Your task to perform on an android device: Open location settings Image 0: 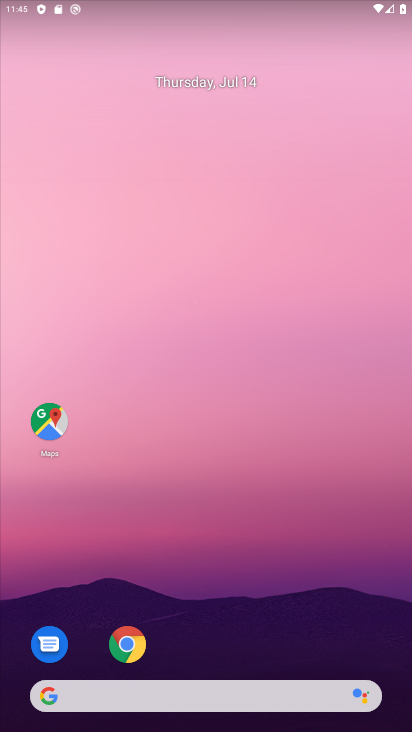
Step 0: drag from (213, 663) to (211, 258)
Your task to perform on an android device: Open location settings Image 1: 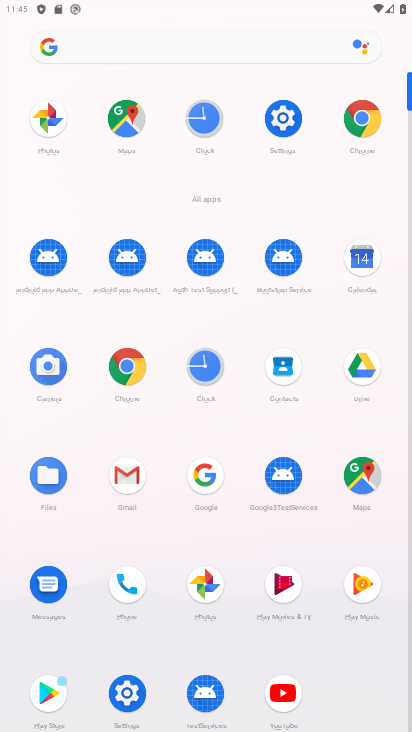
Step 1: click (285, 114)
Your task to perform on an android device: Open location settings Image 2: 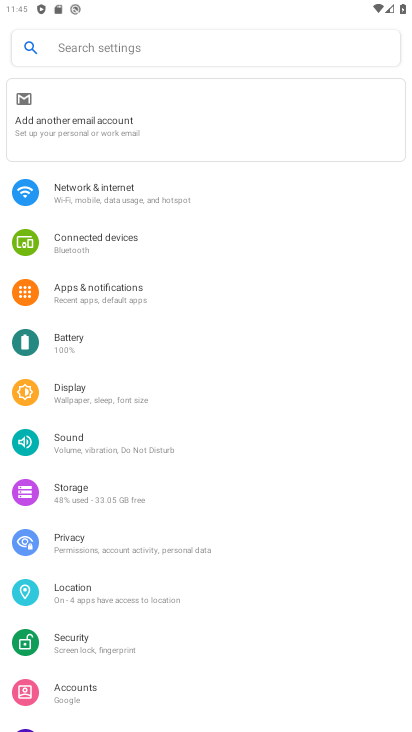
Step 2: click (59, 600)
Your task to perform on an android device: Open location settings Image 3: 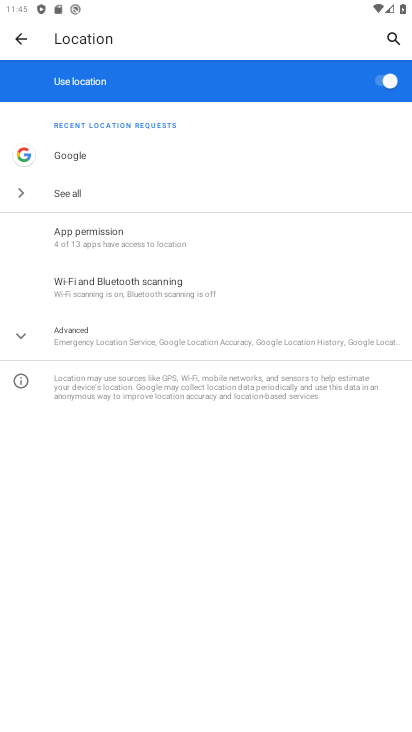
Step 3: click (87, 332)
Your task to perform on an android device: Open location settings Image 4: 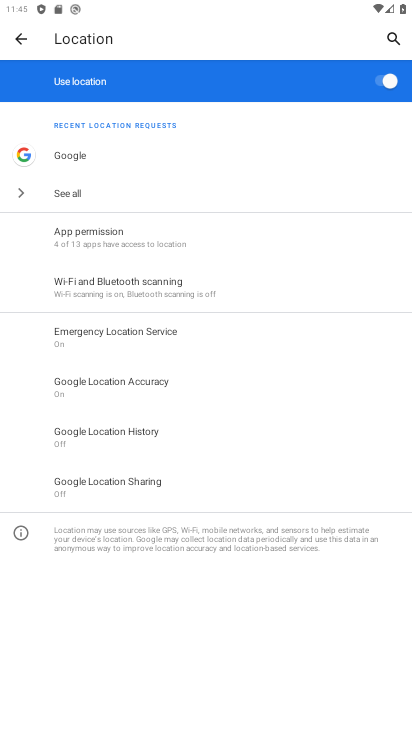
Step 4: task complete